Your task to perform on an android device: What's the weather going to be this weekend? Image 0: 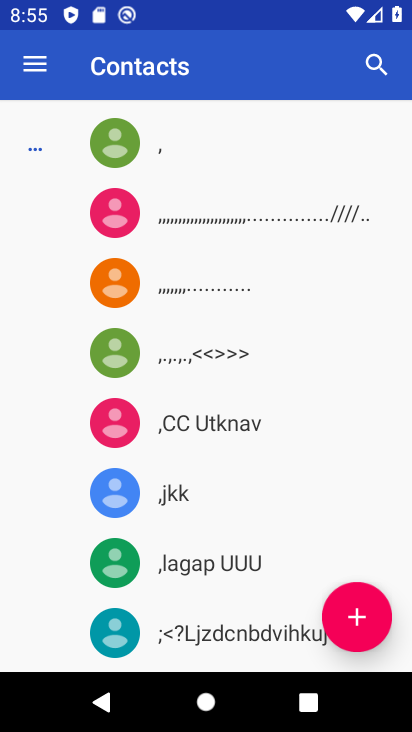
Step 0: press home button
Your task to perform on an android device: What's the weather going to be this weekend? Image 1: 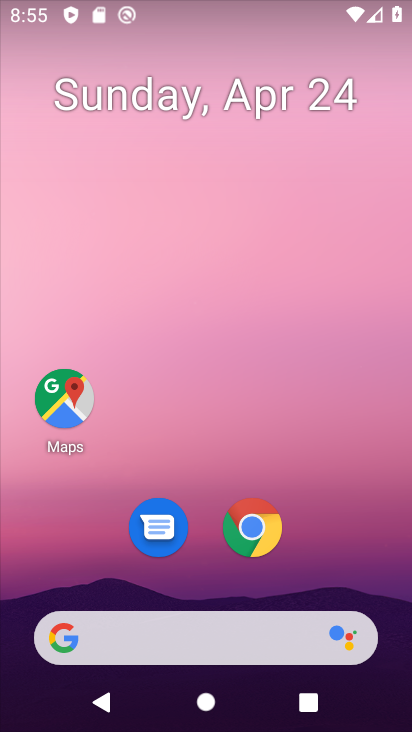
Step 1: drag from (314, 539) to (320, 53)
Your task to perform on an android device: What's the weather going to be this weekend? Image 2: 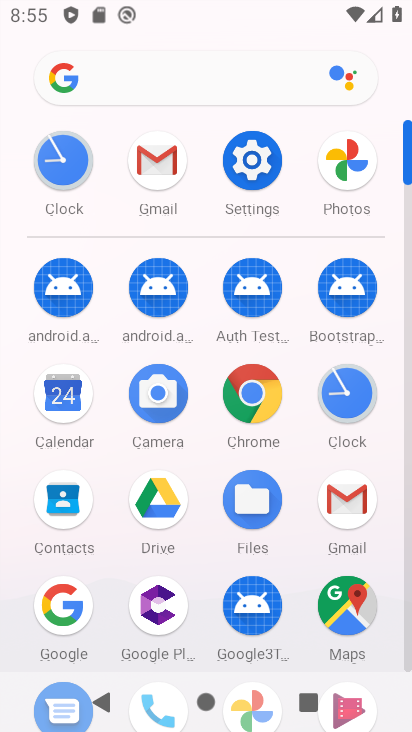
Step 2: click (64, 378)
Your task to perform on an android device: What's the weather going to be this weekend? Image 3: 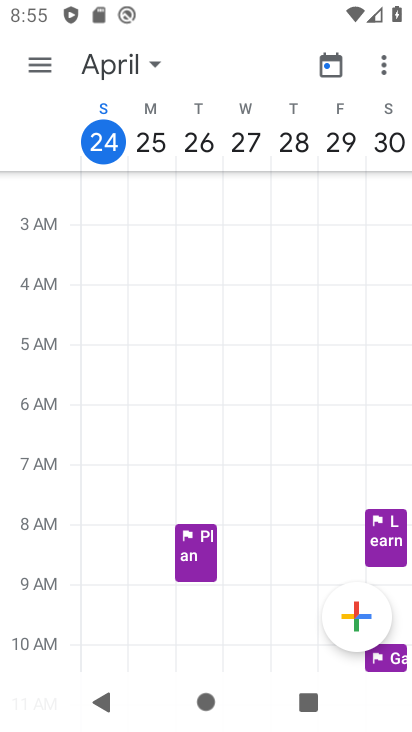
Step 3: press home button
Your task to perform on an android device: What's the weather going to be this weekend? Image 4: 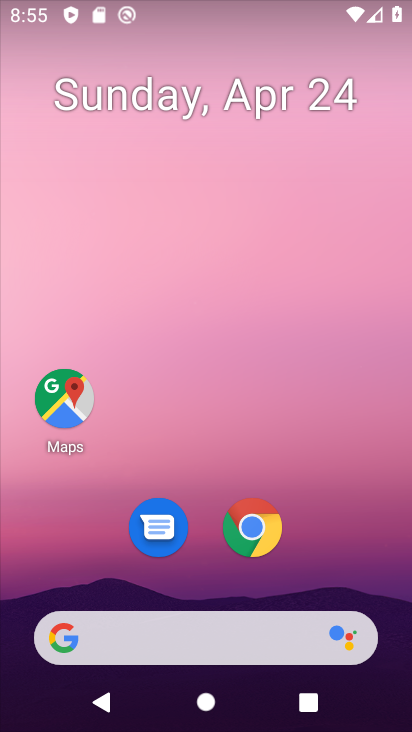
Step 4: click (210, 636)
Your task to perform on an android device: What's the weather going to be this weekend? Image 5: 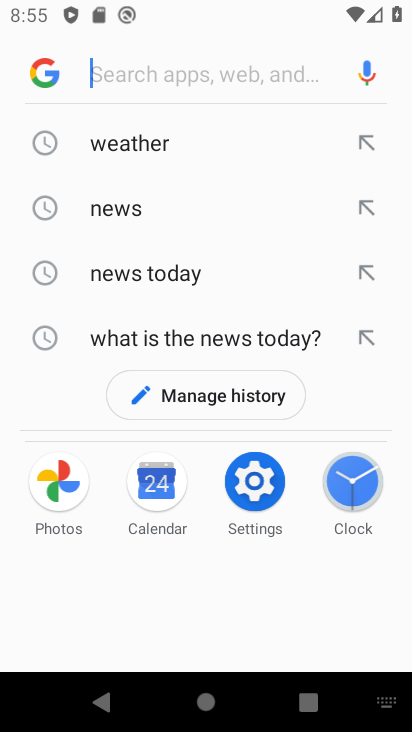
Step 5: click (175, 144)
Your task to perform on an android device: What's the weather going to be this weekend? Image 6: 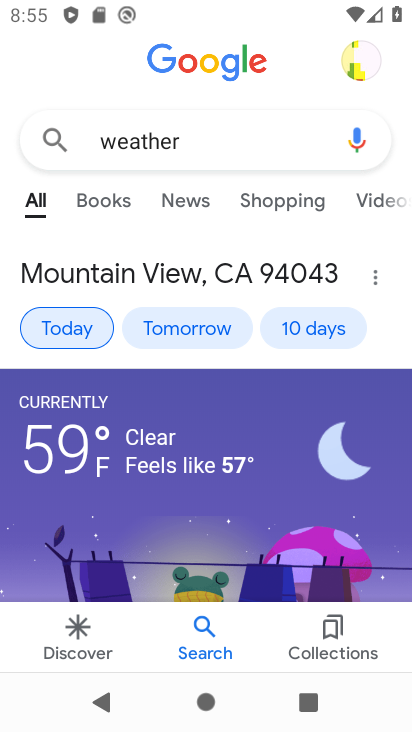
Step 6: click (301, 327)
Your task to perform on an android device: What's the weather going to be this weekend? Image 7: 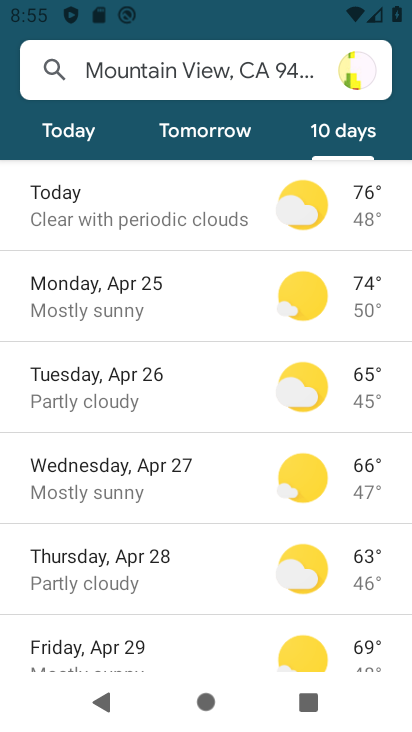
Step 7: task complete